Your task to perform on an android device: Open Chrome and go to settings Image 0: 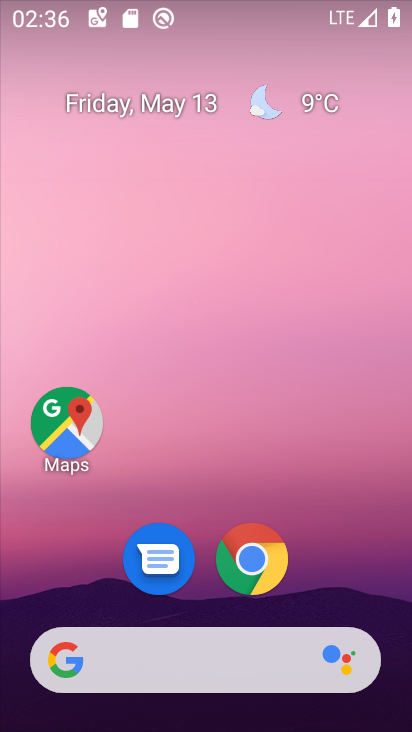
Step 0: click (260, 563)
Your task to perform on an android device: Open Chrome and go to settings Image 1: 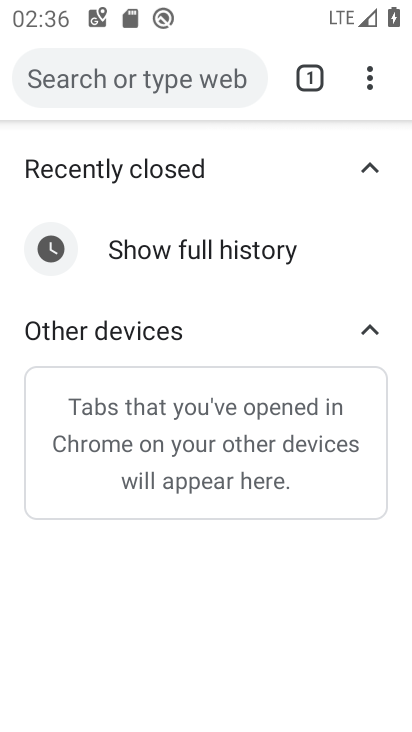
Step 1: click (368, 75)
Your task to perform on an android device: Open Chrome and go to settings Image 2: 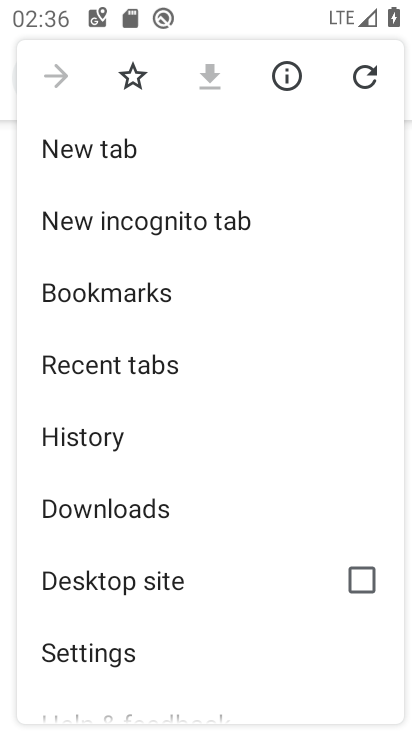
Step 2: click (100, 642)
Your task to perform on an android device: Open Chrome and go to settings Image 3: 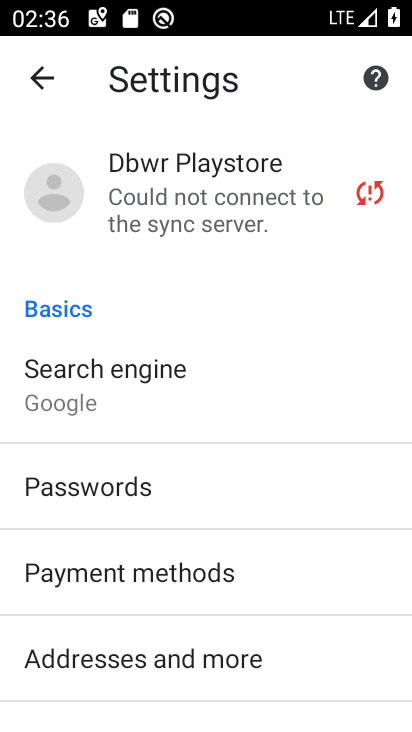
Step 3: task complete